Your task to perform on an android device: check data usage Image 0: 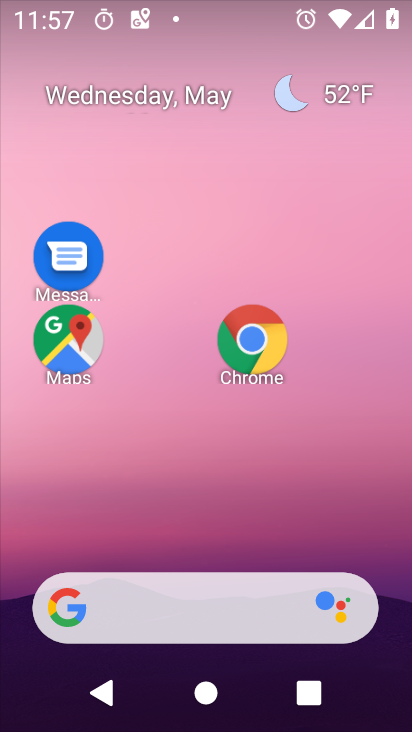
Step 0: drag from (192, 515) to (161, 42)
Your task to perform on an android device: check data usage Image 1: 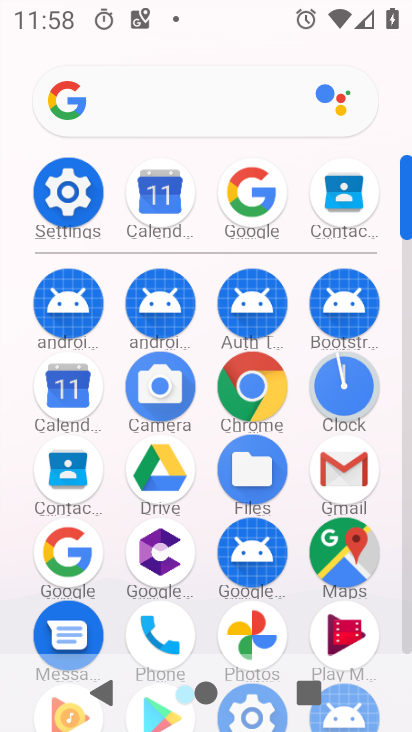
Step 1: click (73, 191)
Your task to perform on an android device: check data usage Image 2: 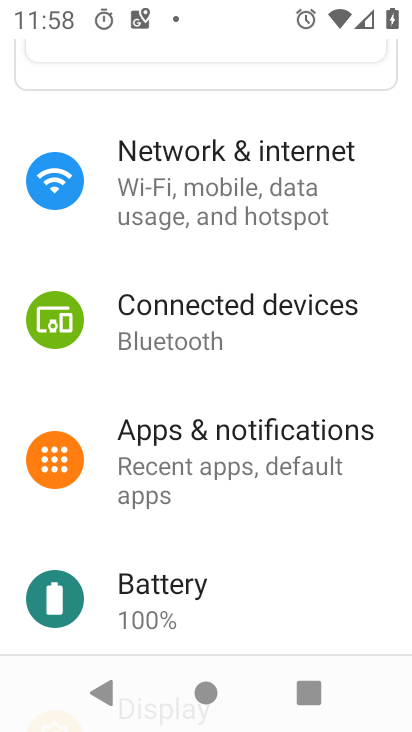
Step 2: drag from (250, 518) to (270, 567)
Your task to perform on an android device: check data usage Image 3: 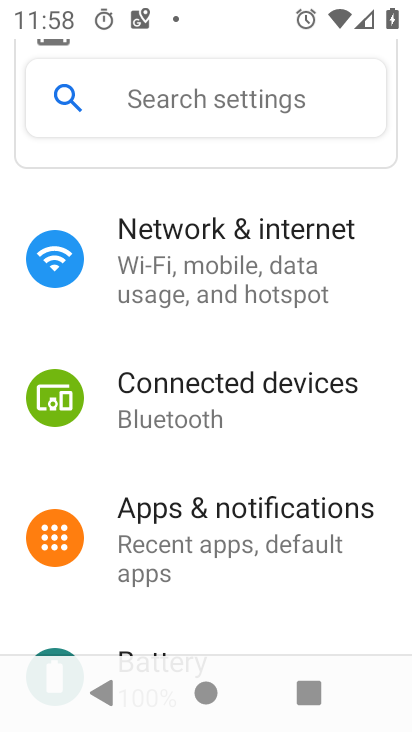
Step 3: click (224, 257)
Your task to perform on an android device: check data usage Image 4: 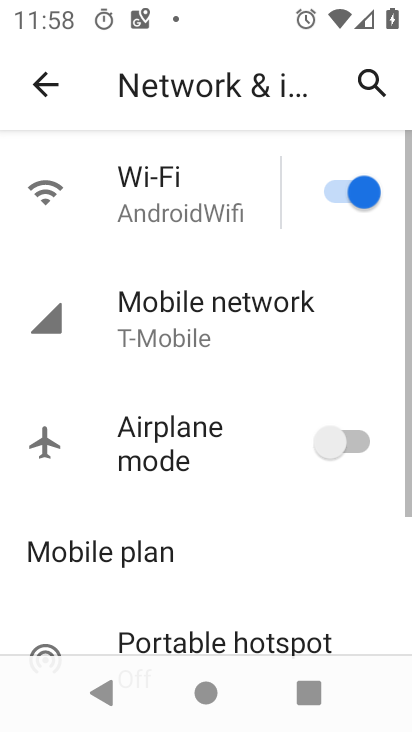
Step 4: click (207, 293)
Your task to perform on an android device: check data usage Image 5: 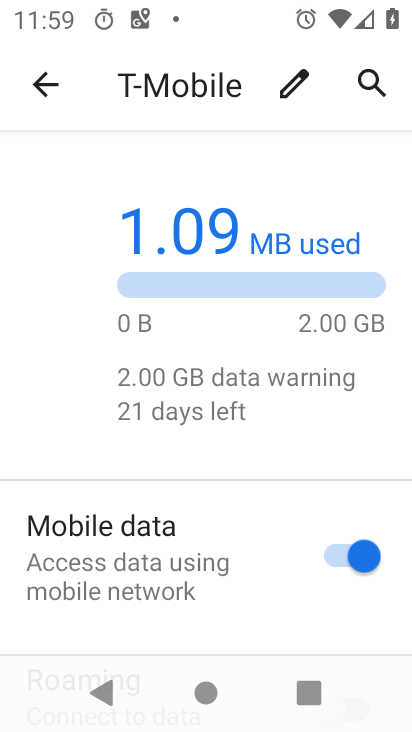
Step 5: task complete